Your task to perform on an android device: search for 2021 honda civic Image 0: 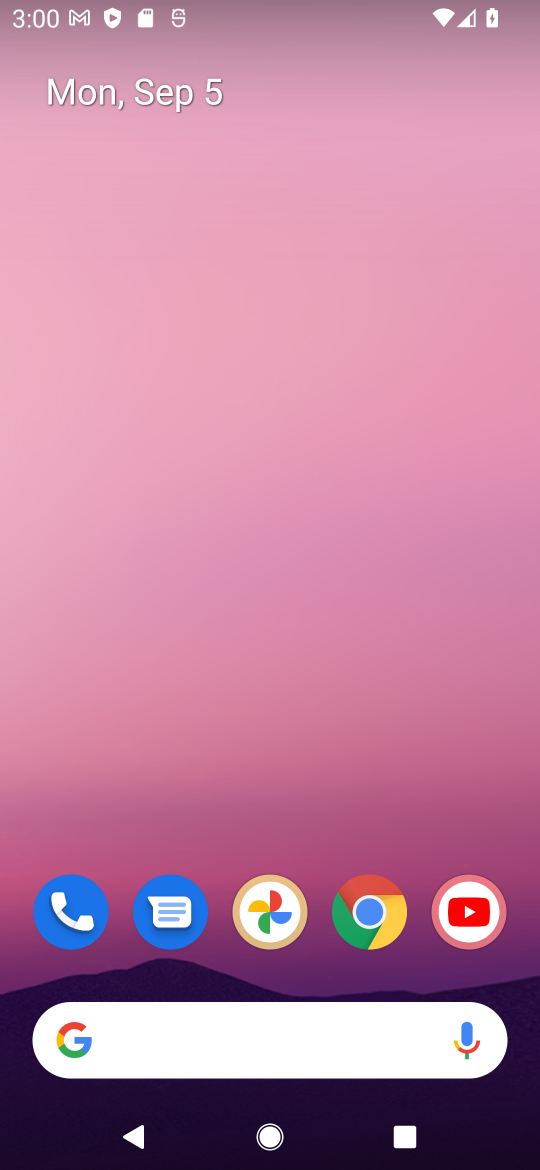
Step 0: click (365, 932)
Your task to perform on an android device: search for 2021 honda civic Image 1: 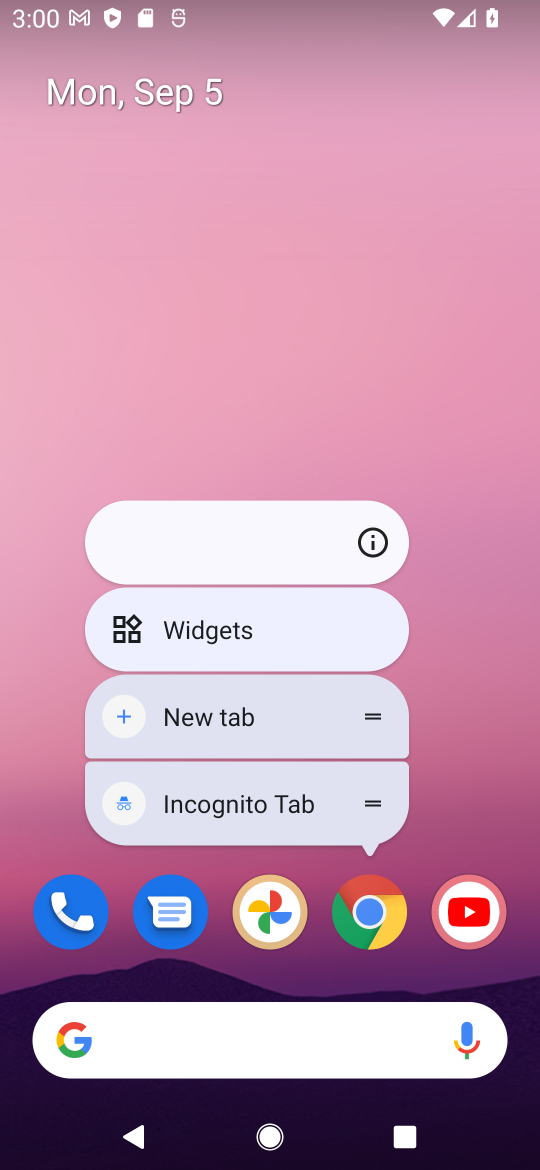
Step 1: click (383, 910)
Your task to perform on an android device: search for 2021 honda civic Image 2: 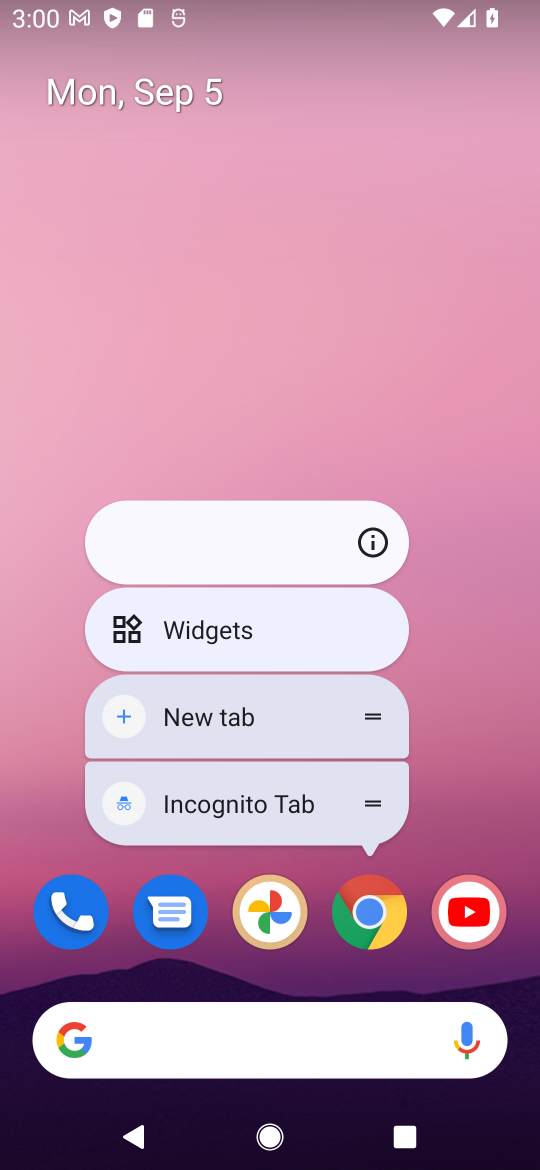
Step 2: click (495, 735)
Your task to perform on an android device: search for 2021 honda civic Image 3: 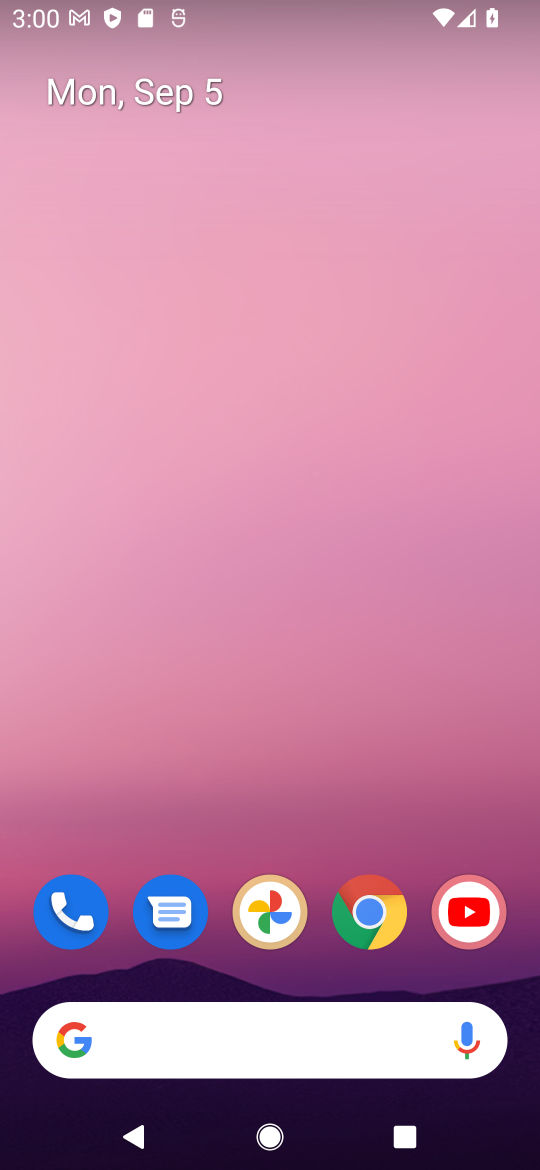
Step 3: click (376, 915)
Your task to perform on an android device: search for 2021 honda civic Image 4: 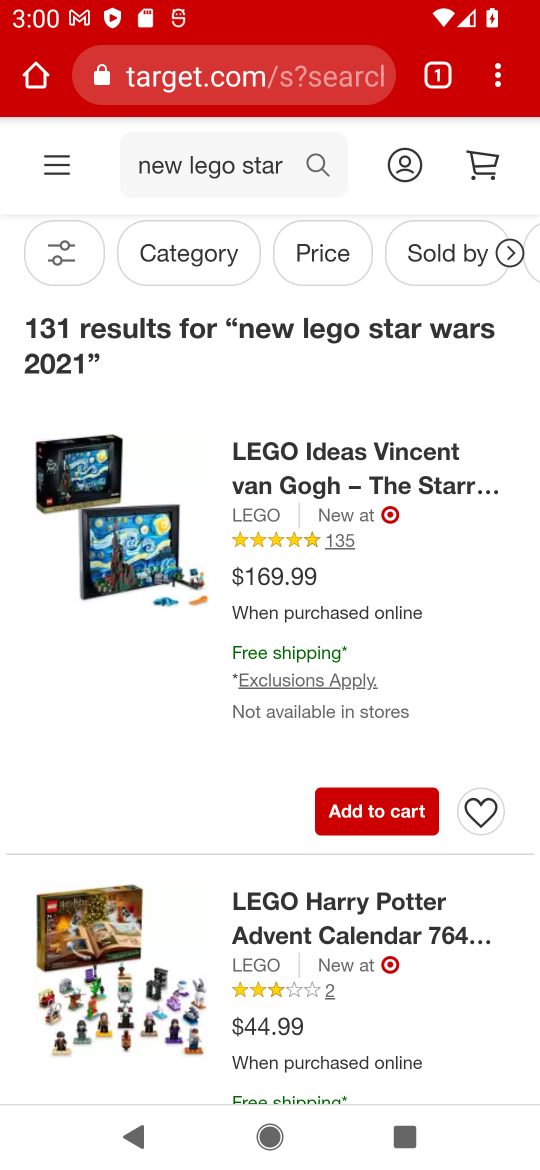
Step 4: click (293, 78)
Your task to perform on an android device: search for 2021 honda civic Image 5: 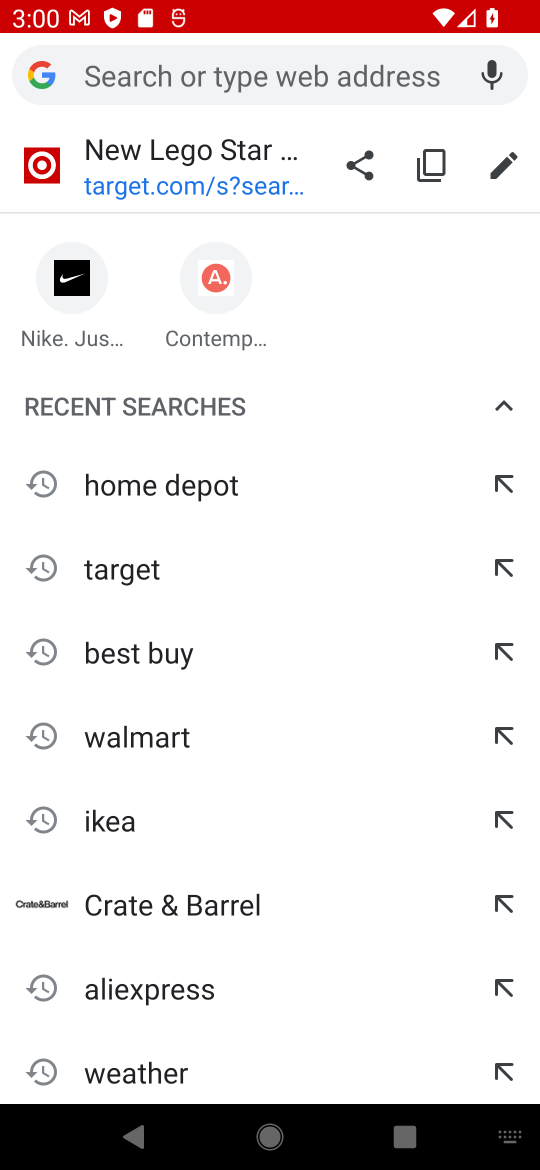
Step 5: type "2021 honda civic"
Your task to perform on an android device: search for 2021 honda civic Image 6: 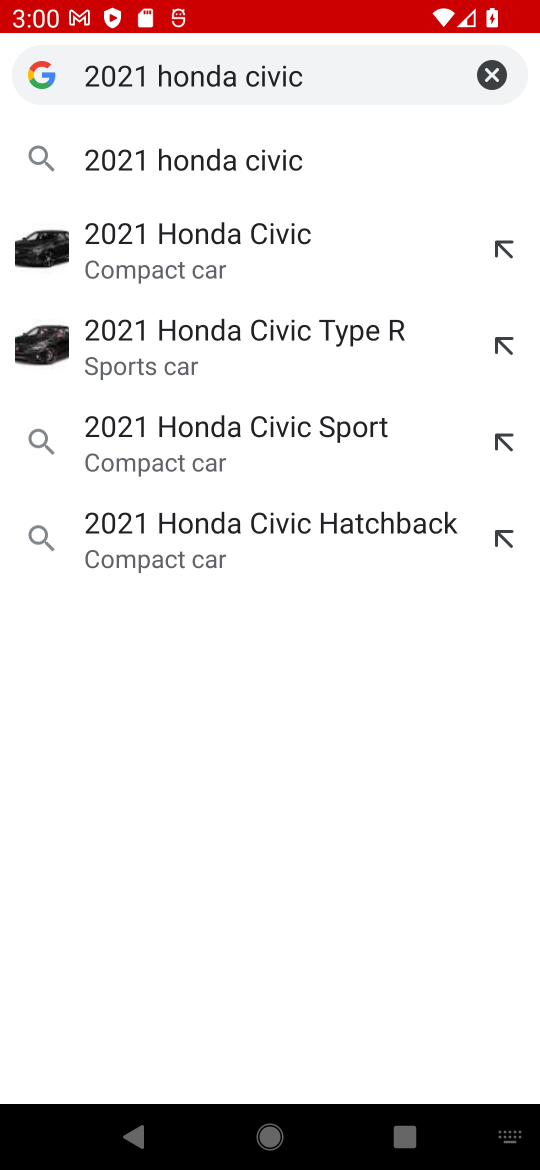
Step 6: press enter
Your task to perform on an android device: search for 2021 honda civic Image 7: 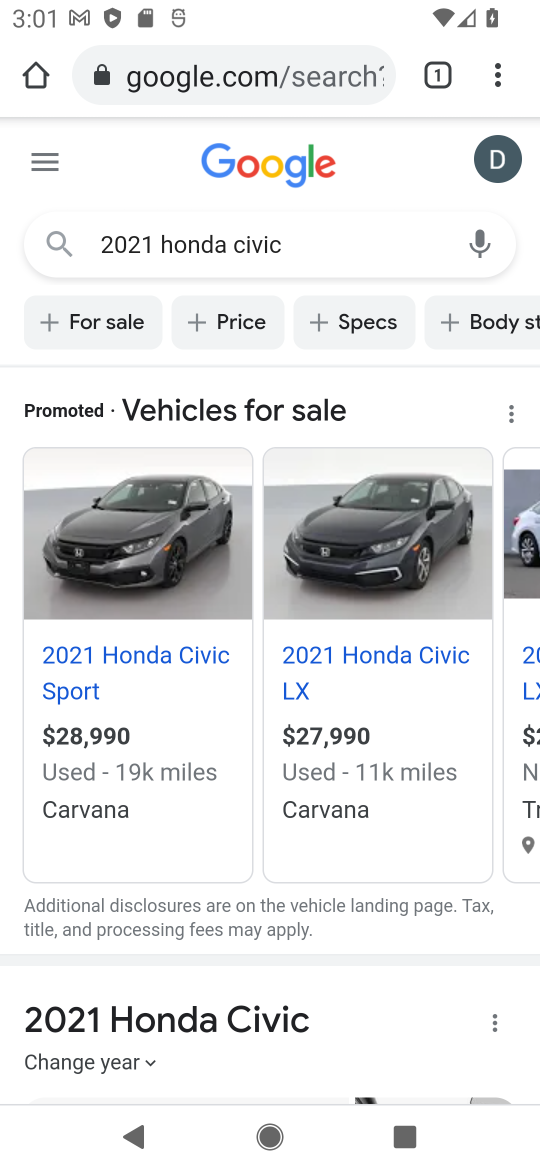
Step 7: task complete